Your task to perform on an android device: Open Maps and search for coffee Image 0: 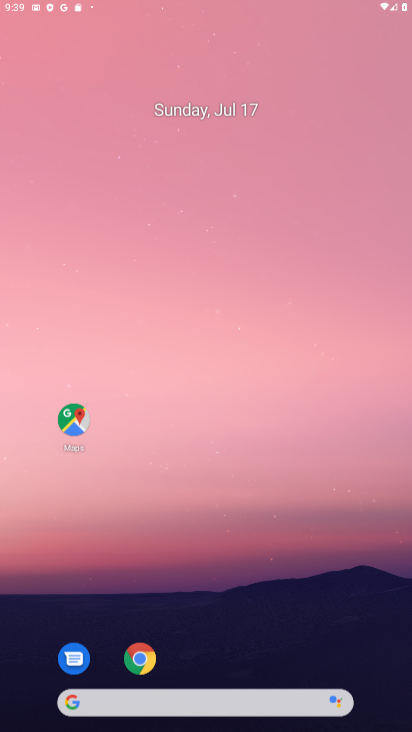
Step 0: drag from (220, 683) to (288, 118)
Your task to perform on an android device: Open Maps and search for coffee Image 1: 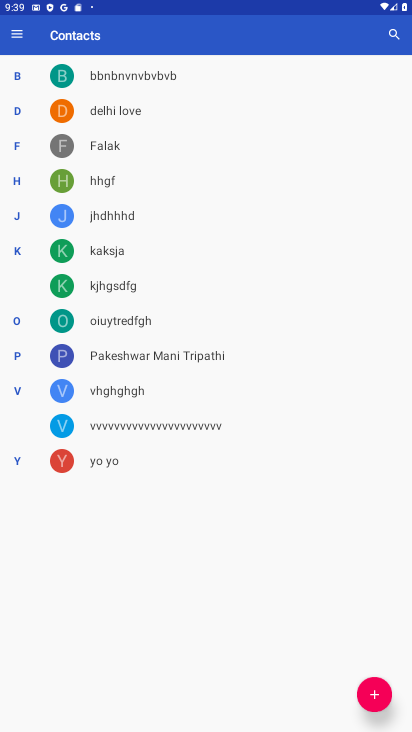
Step 1: press home button
Your task to perform on an android device: Open Maps and search for coffee Image 2: 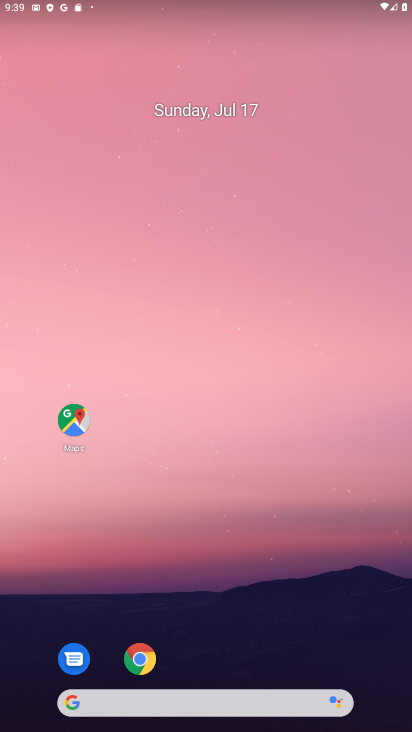
Step 2: drag from (215, 675) to (262, 157)
Your task to perform on an android device: Open Maps and search for coffee Image 3: 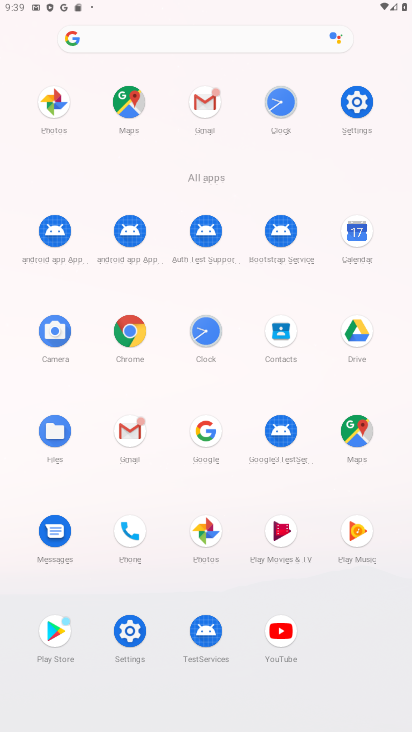
Step 3: click (364, 428)
Your task to perform on an android device: Open Maps and search for coffee Image 4: 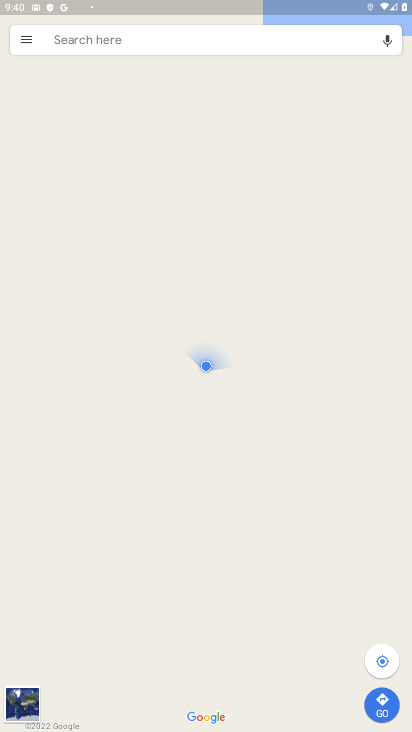
Step 4: click (148, 40)
Your task to perform on an android device: Open Maps and search for coffee Image 5: 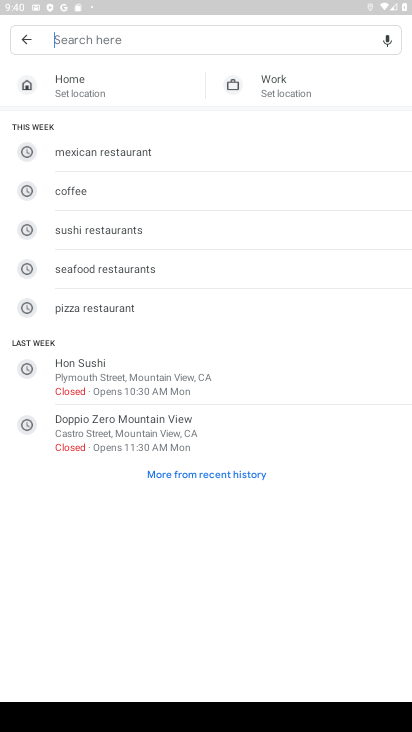
Step 5: type "Coffee"
Your task to perform on an android device: Open Maps and search for coffee Image 6: 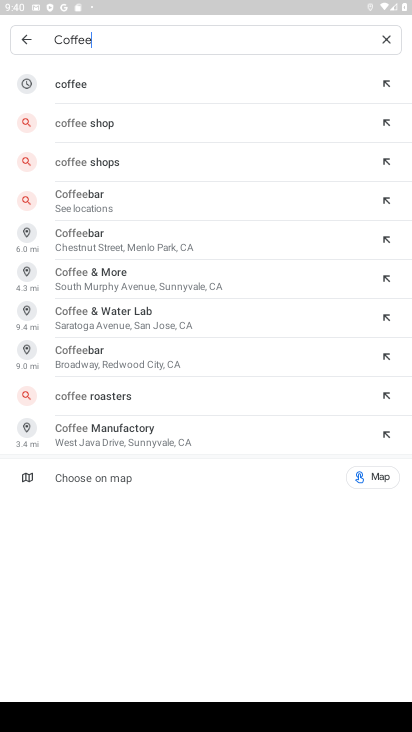
Step 6: click (119, 86)
Your task to perform on an android device: Open Maps and search for coffee Image 7: 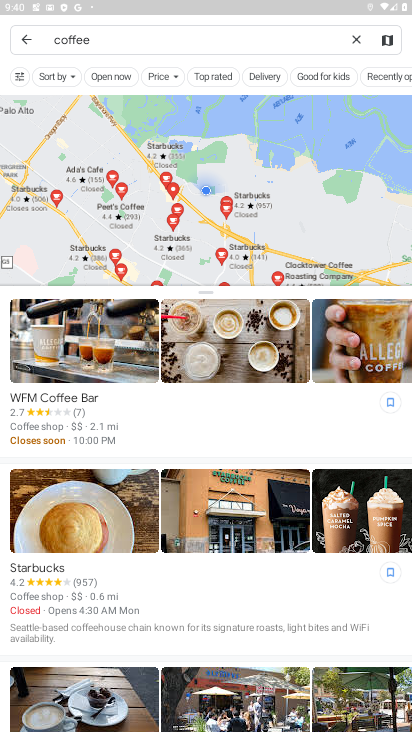
Step 7: task complete